Your task to perform on an android device: star an email in the gmail app Image 0: 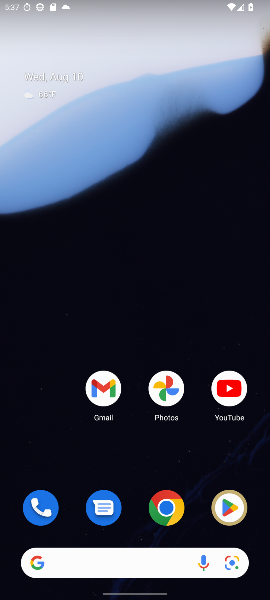
Step 0: press home button
Your task to perform on an android device: star an email in the gmail app Image 1: 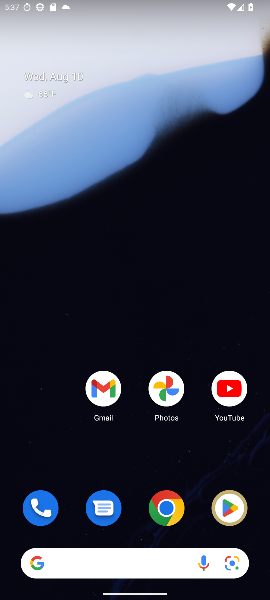
Step 1: click (97, 382)
Your task to perform on an android device: star an email in the gmail app Image 2: 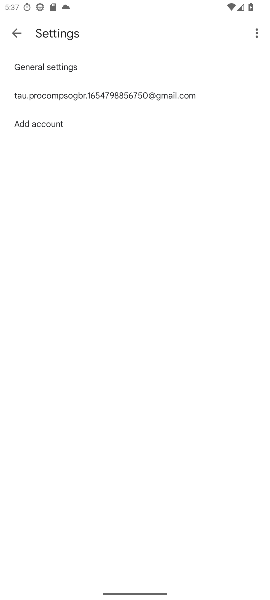
Step 2: press back button
Your task to perform on an android device: star an email in the gmail app Image 3: 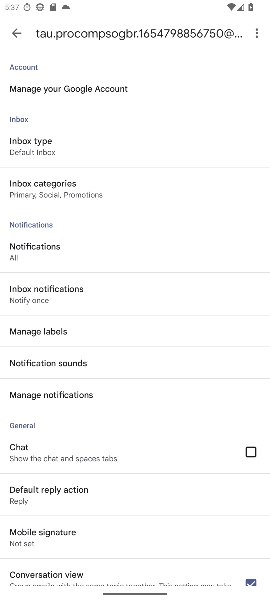
Step 3: press back button
Your task to perform on an android device: star an email in the gmail app Image 4: 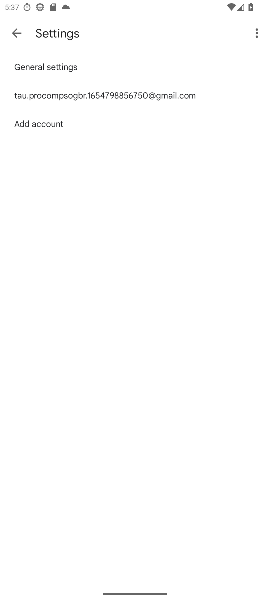
Step 4: press back button
Your task to perform on an android device: star an email in the gmail app Image 5: 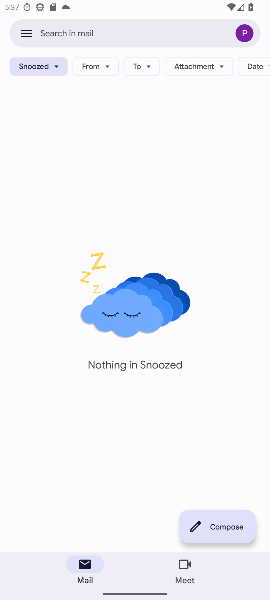
Step 5: click (24, 36)
Your task to perform on an android device: star an email in the gmail app Image 6: 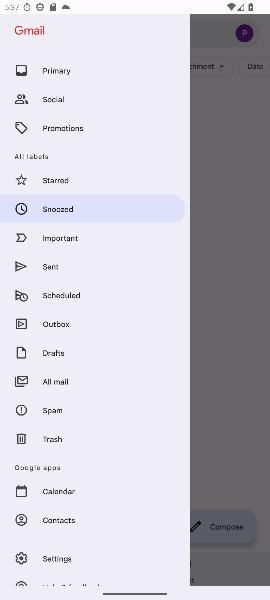
Step 6: click (48, 380)
Your task to perform on an android device: star an email in the gmail app Image 7: 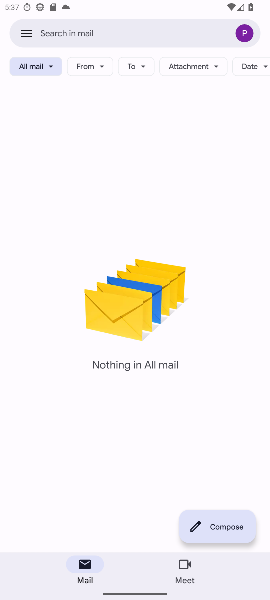
Step 7: task complete